Your task to perform on an android device: Open sound settings Image 0: 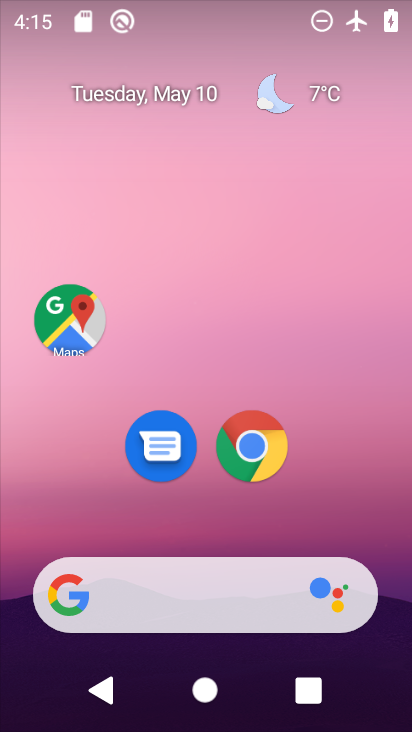
Step 0: drag from (347, 460) to (228, 1)
Your task to perform on an android device: Open sound settings Image 1: 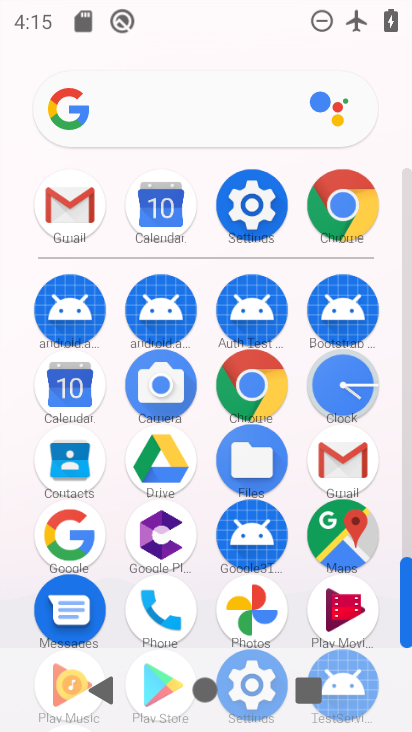
Step 1: click (258, 204)
Your task to perform on an android device: Open sound settings Image 2: 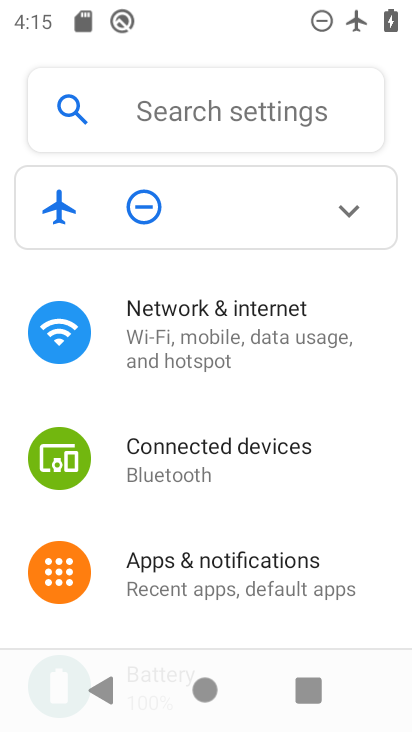
Step 2: drag from (210, 528) to (227, 151)
Your task to perform on an android device: Open sound settings Image 3: 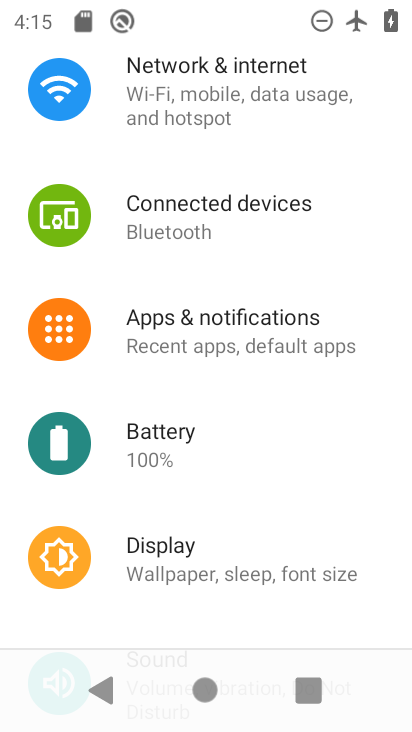
Step 3: drag from (245, 397) to (233, 237)
Your task to perform on an android device: Open sound settings Image 4: 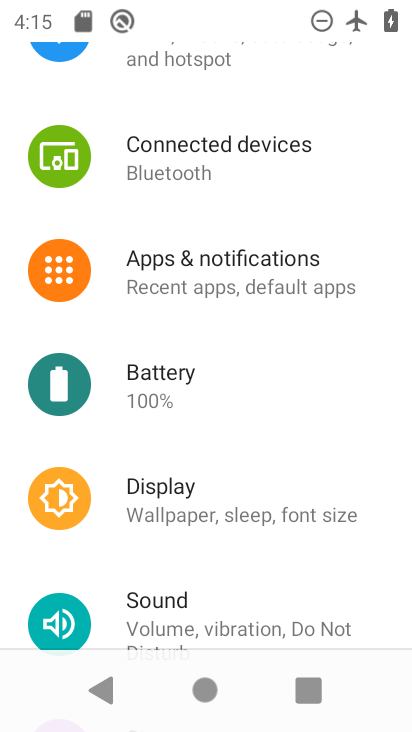
Step 4: click (221, 596)
Your task to perform on an android device: Open sound settings Image 5: 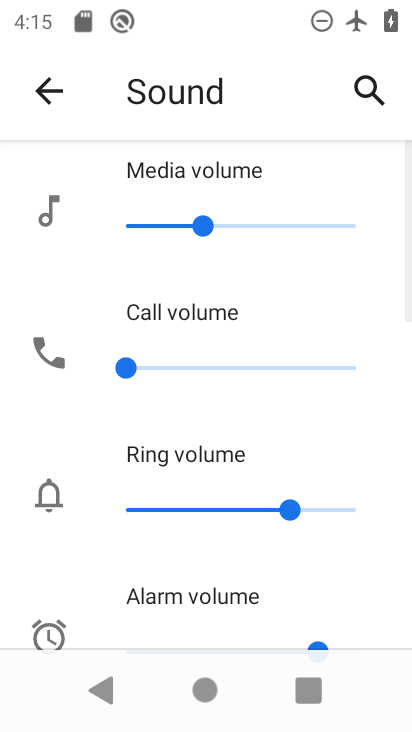
Step 5: task complete